Your task to perform on an android device: all mails in gmail Image 0: 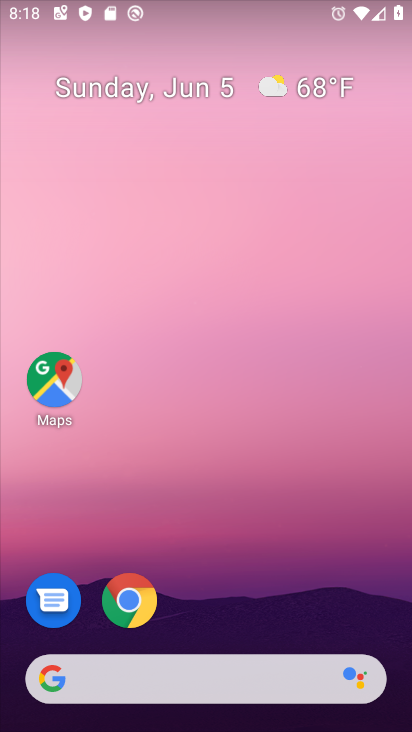
Step 0: drag from (386, 637) to (240, 53)
Your task to perform on an android device: all mails in gmail Image 1: 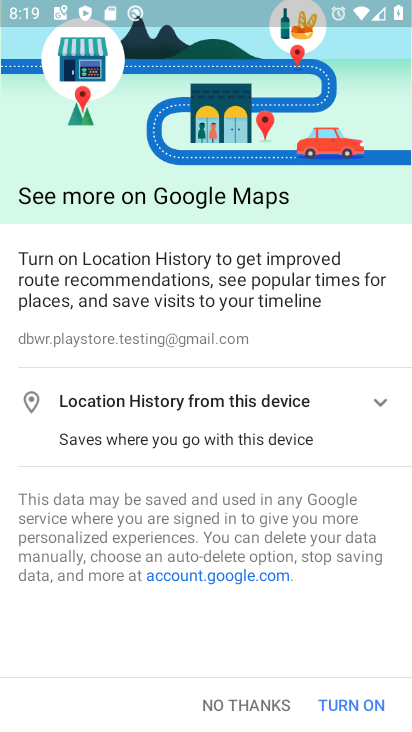
Step 1: click (267, 703)
Your task to perform on an android device: all mails in gmail Image 2: 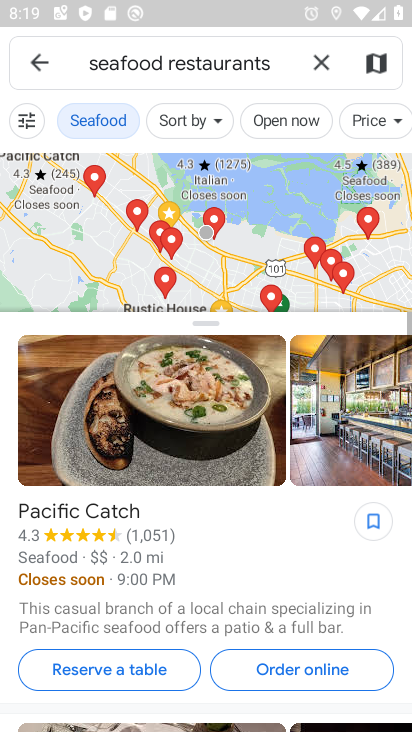
Step 2: press home button
Your task to perform on an android device: all mails in gmail Image 3: 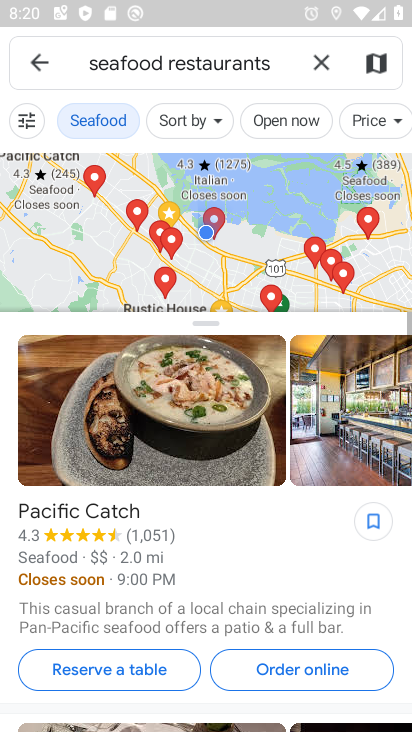
Step 3: drag from (372, 594) to (372, 521)
Your task to perform on an android device: all mails in gmail Image 4: 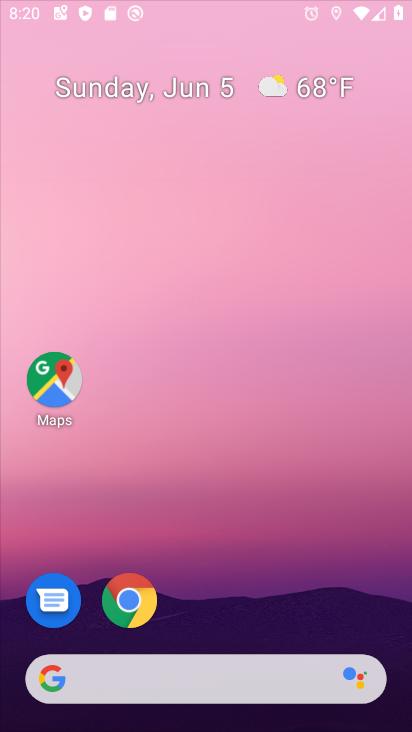
Step 4: click (256, 34)
Your task to perform on an android device: all mails in gmail Image 5: 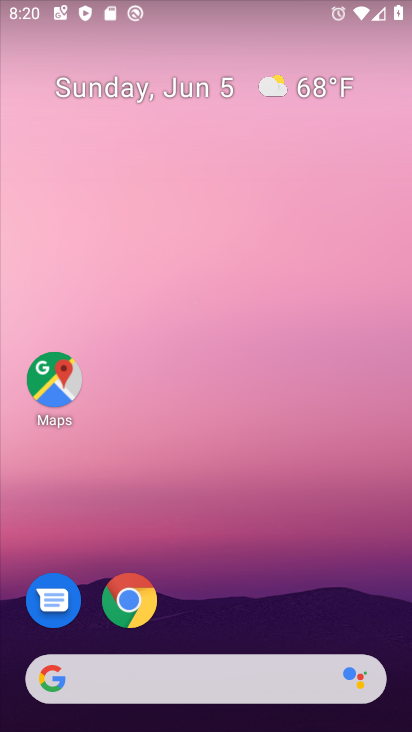
Step 5: drag from (393, 542) to (279, 2)
Your task to perform on an android device: all mails in gmail Image 6: 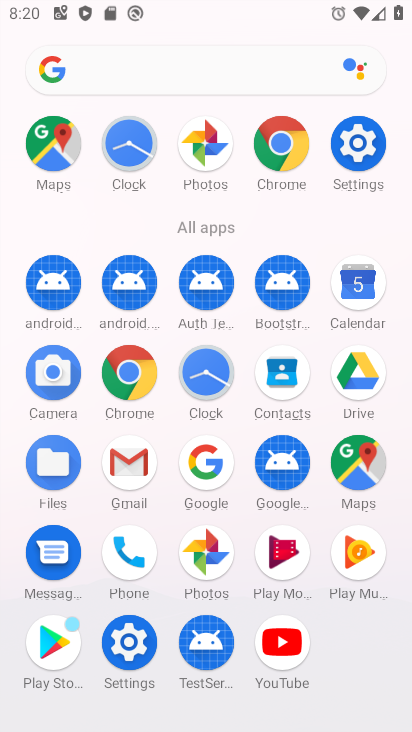
Step 6: click (136, 477)
Your task to perform on an android device: all mails in gmail Image 7: 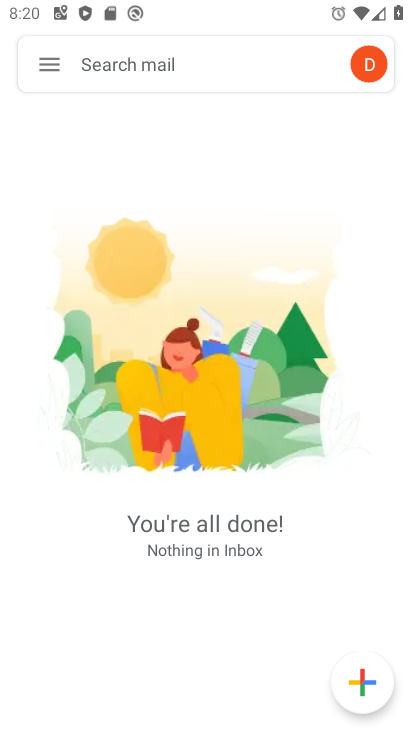
Step 7: click (33, 63)
Your task to perform on an android device: all mails in gmail Image 8: 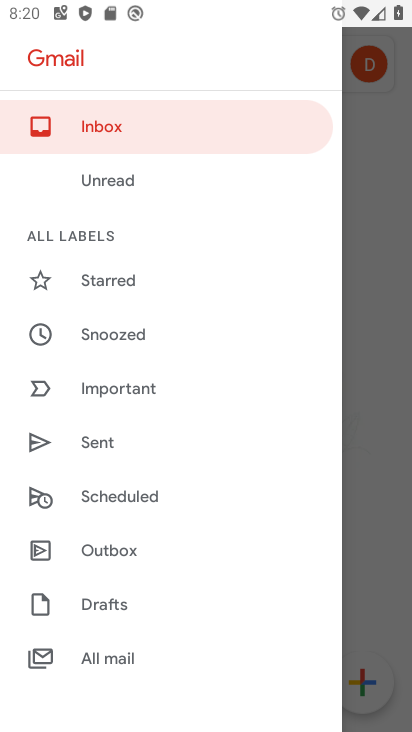
Step 8: click (143, 666)
Your task to perform on an android device: all mails in gmail Image 9: 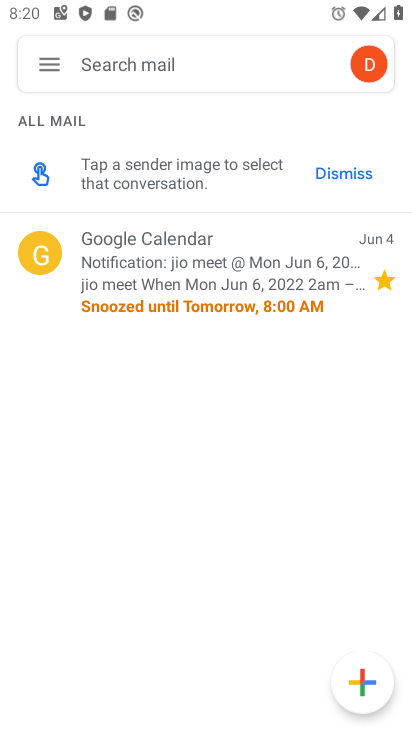
Step 9: task complete